Your task to perform on an android device: Search for vegetarian restaurants on Maps Image 0: 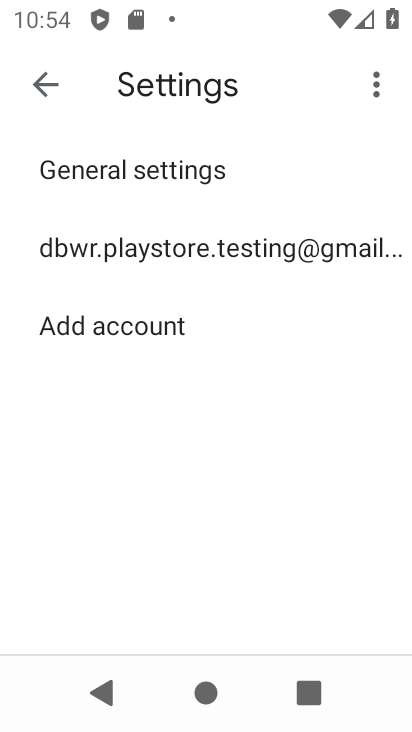
Step 0: press home button
Your task to perform on an android device: Search for vegetarian restaurants on Maps Image 1: 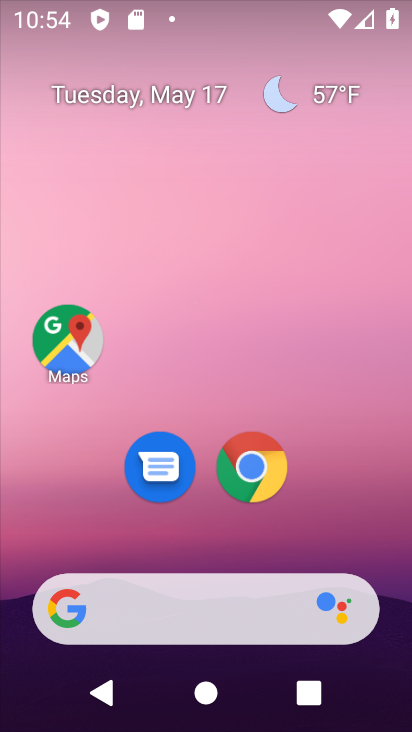
Step 1: click (66, 319)
Your task to perform on an android device: Search for vegetarian restaurants on Maps Image 2: 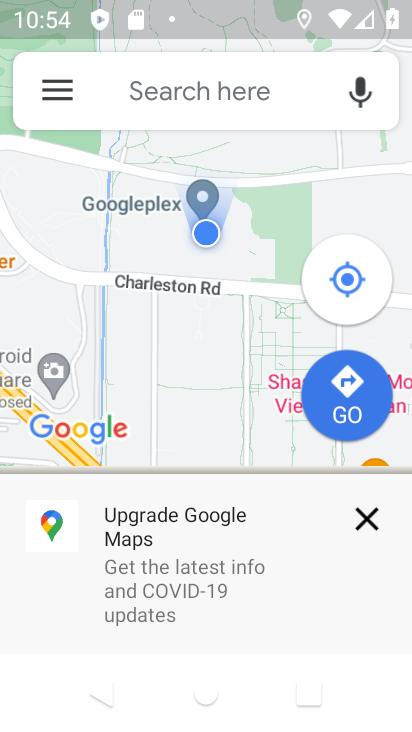
Step 2: click (156, 98)
Your task to perform on an android device: Search for vegetarian restaurants on Maps Image 3: 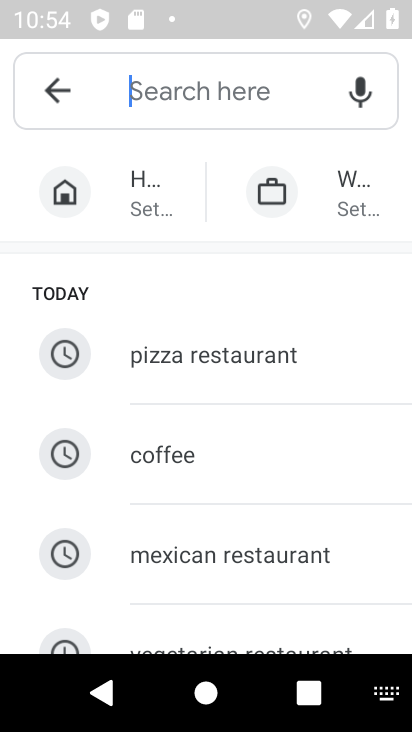
Step 3: drag from (228, 574) to (220, 284)
Your task to perform on an android device: Search for vegetarian restaurants on Maps Image 4: 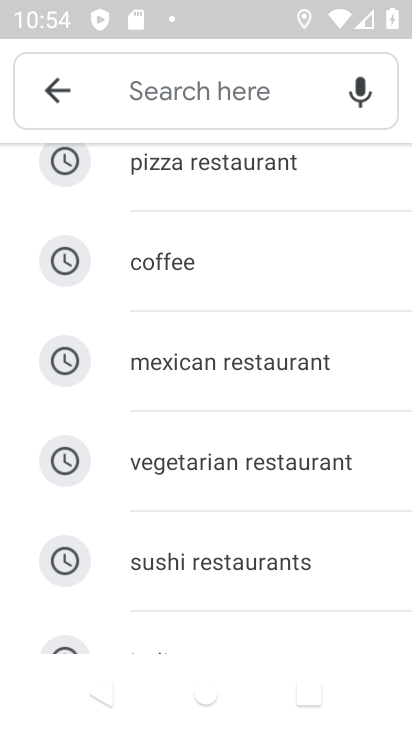
Step 4: click (215, 462)
Your task to perform on an android device: Search for vegetarian restaurants on Maps Image 5: 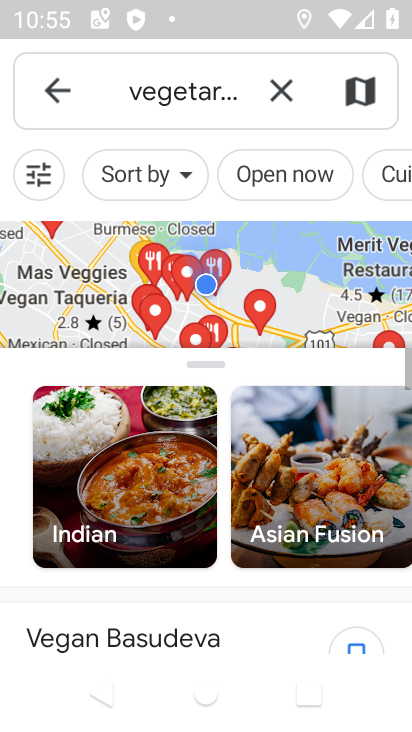
Step 5: task complete